Your task to perform on an android device: Open Google Image 0: 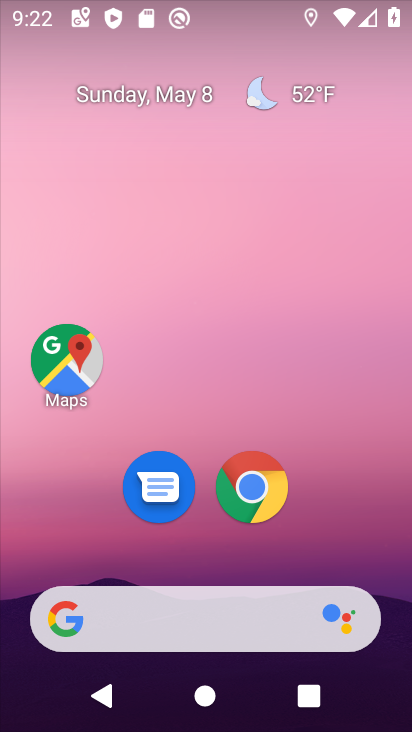
Step 0: drag from (403, 610) to (169, 54)
Your task to perform on an android device: Open Google Image 1: 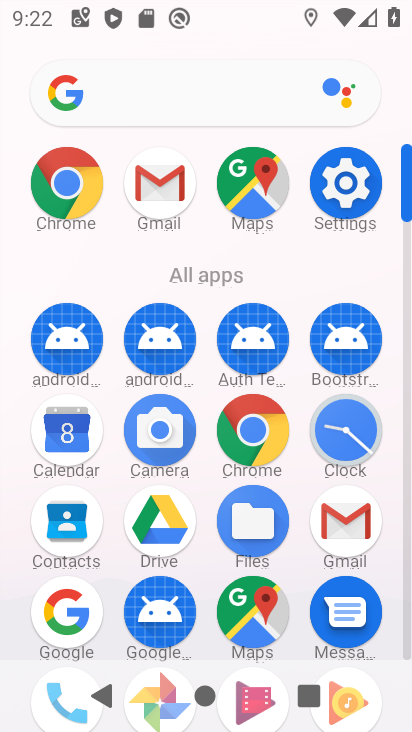
Step 1: click (73, 605)
Your task to perform on an android device: Open Google Image 2: 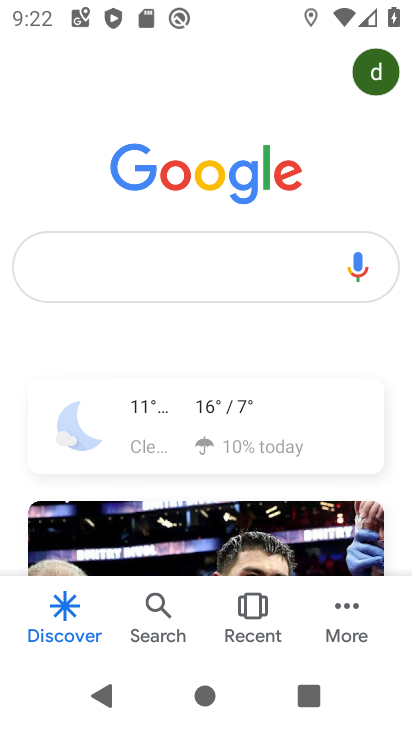
Step 2: task complete